Your task to perform on an android device: Go to accessibility settings Image 0: 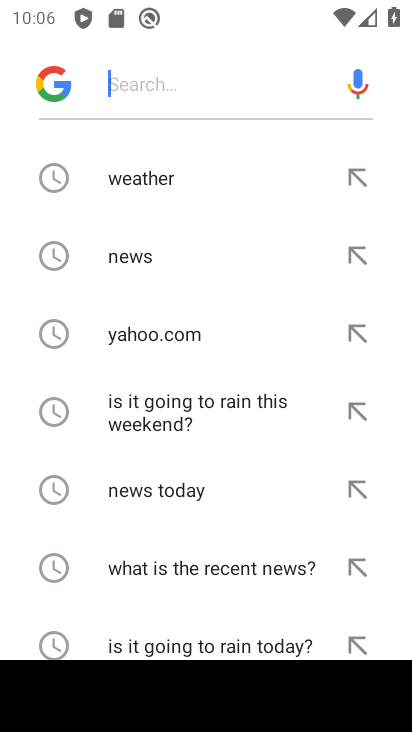
Step 0: press home button
Your task to perform on an android device: Go to accessibility settings Image 1: 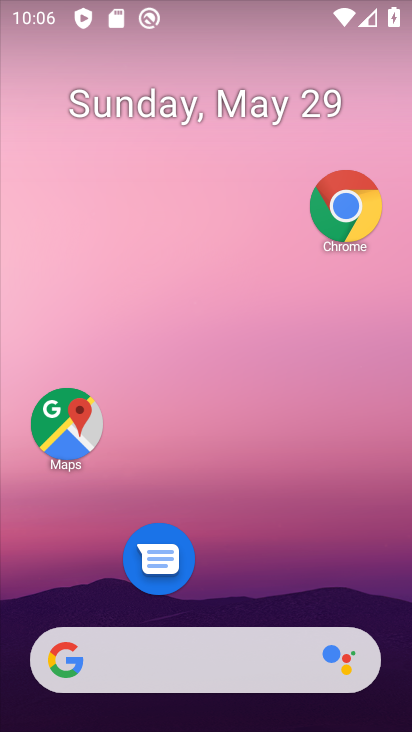
Step 1: drag from (207, 591) to (293, 11)
Your task to perform on an android device: Go to accessibility settings Image 2: 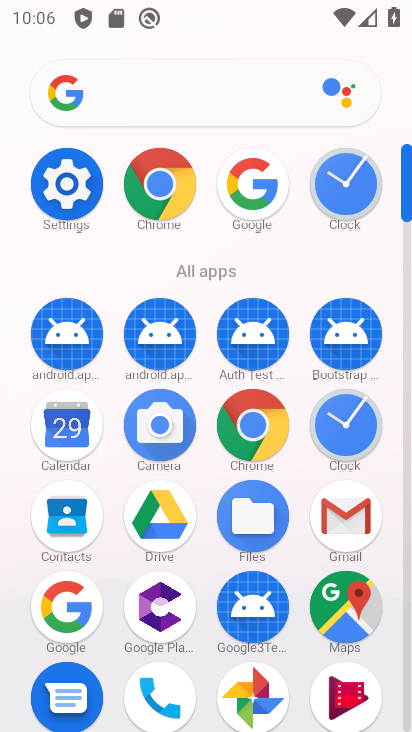
Step 2: click (59, 204)
Your task to perform on an android device: Go to accessibility settings Image 3: 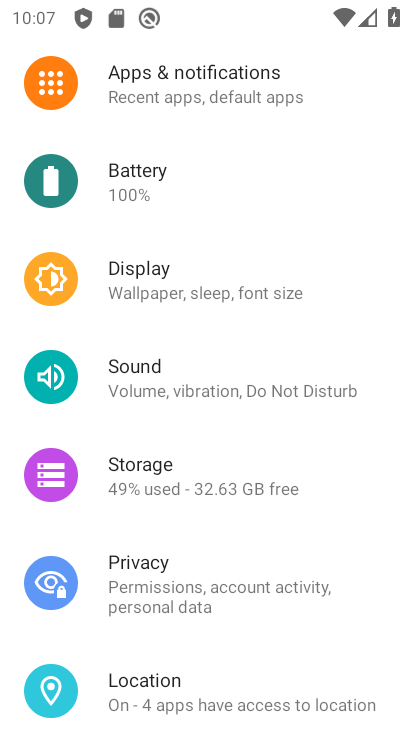
Step 3: drag from (230, 627) to (225, 266)
Your task to perform on an android device: Go to accessibility settings Image 4: 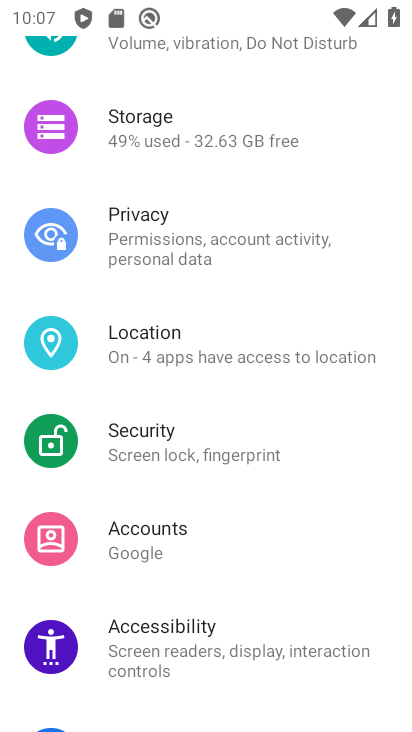
Step 4: drag from (177, 673) to (228, 234)
Your task to perform on an android device: Go to accessibility settings Image 5: 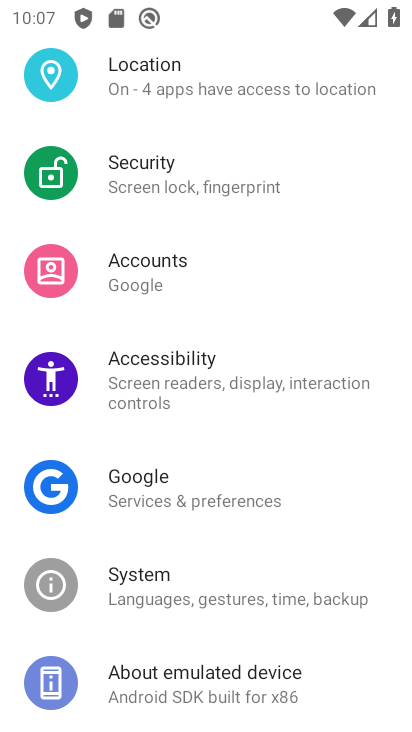
Step 5: click (186, 390)
Your task to perform on an android device: Go to accessibility settings Image 6: 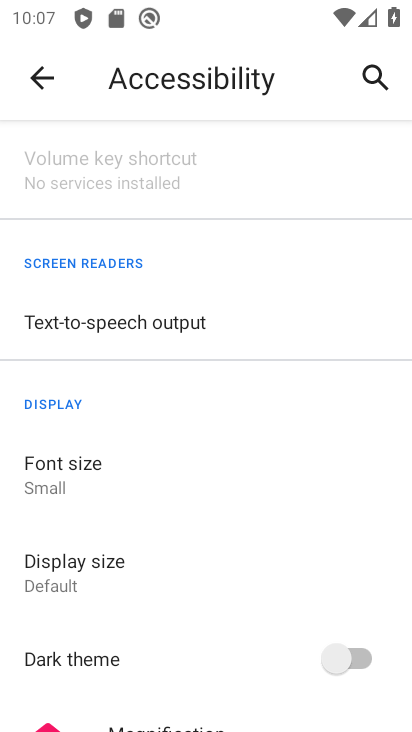
Step 6: task complete